Your task to perform on an android device: When is my next appointment? Image 0: 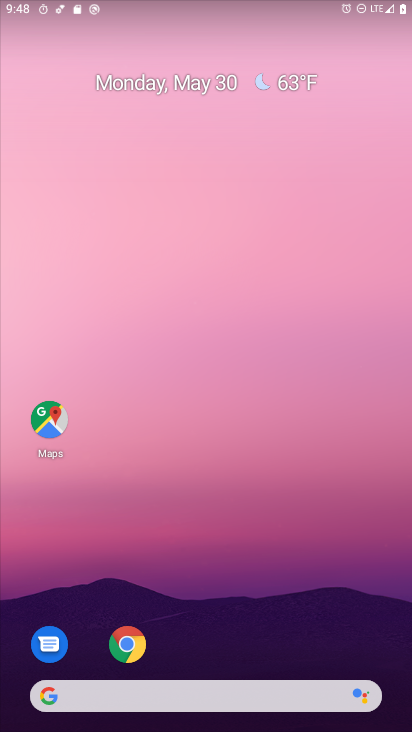
Step 0: drag from (227, 634) to (229, 25)
Your task to perform on an android device: When is my next appointment? Image 1: 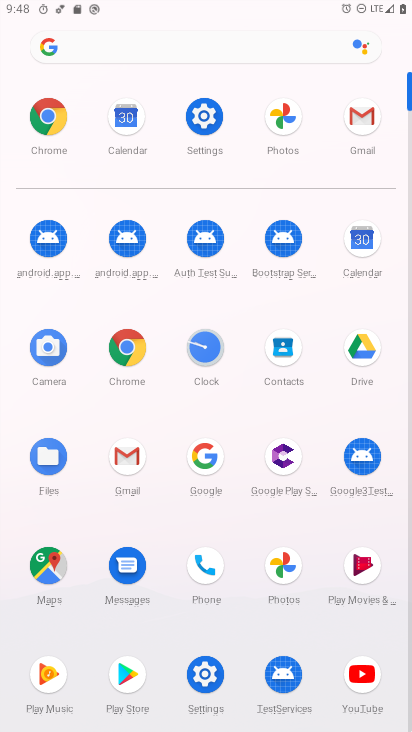
Step 1: click (352, 241)
Your task to perform on an android device: When is my next appointment? Image 2: 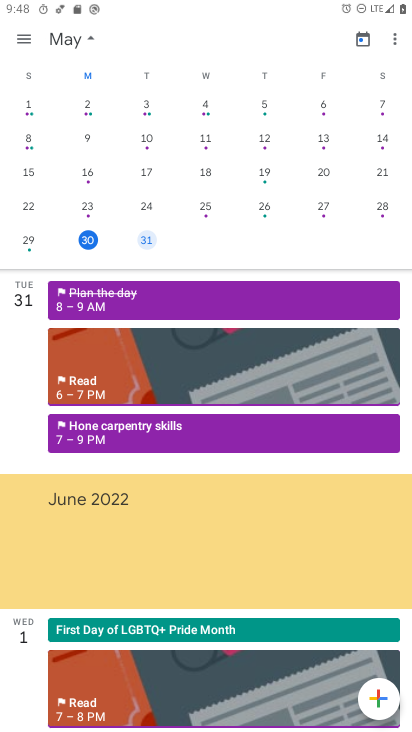
Step 2: click (149, 238)
Your task to perform on an android device: When is my next appointment? Image 3: 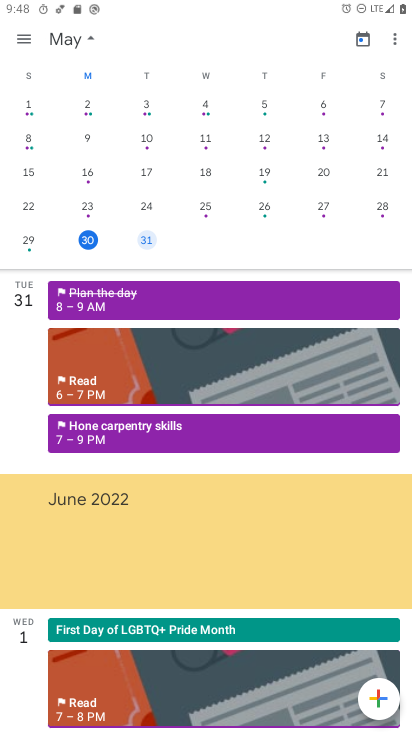
Step 3: task complete